Your task to perform on an android device: move an email to a new category in the gmail app Image 0: 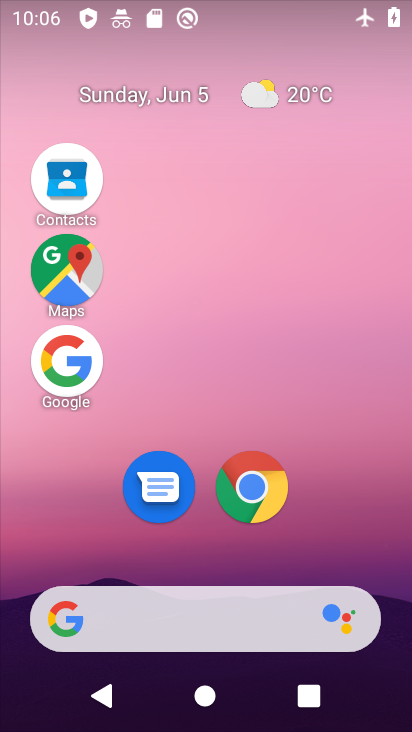
Step 0: drag from (221, 587) to (249, 186)
Your task to perform on an android device: move an email to a new category in the gmail app Image 1: 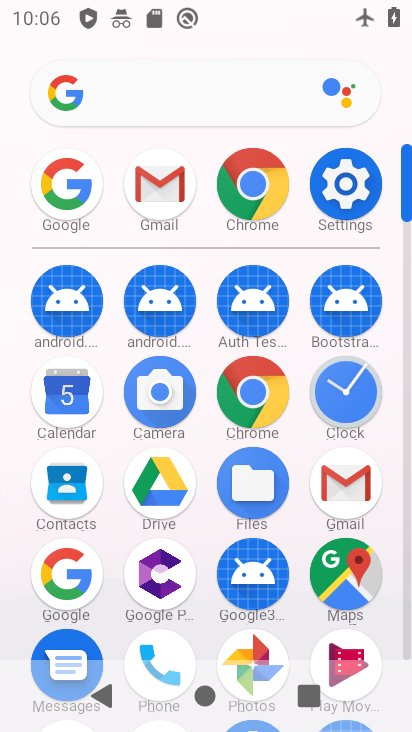
Step 1: click (350, 476)
Your task to perform on an android device: move an email to a new category in the gmail app Image 2: 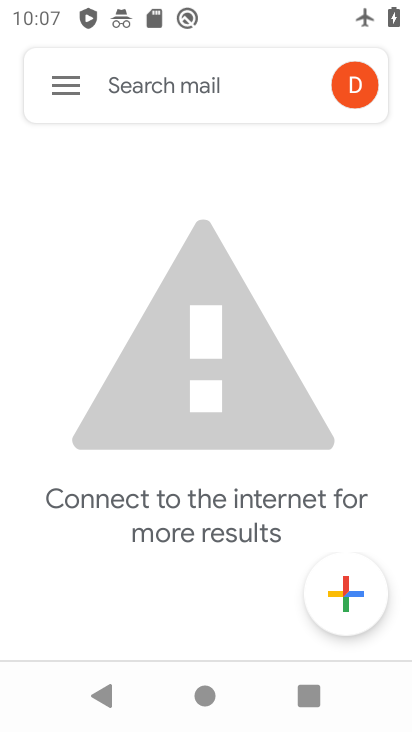
Step 2: click (58, 89)
Your task to perform on an android device: move an email to a new category in the gmail app Image 3: 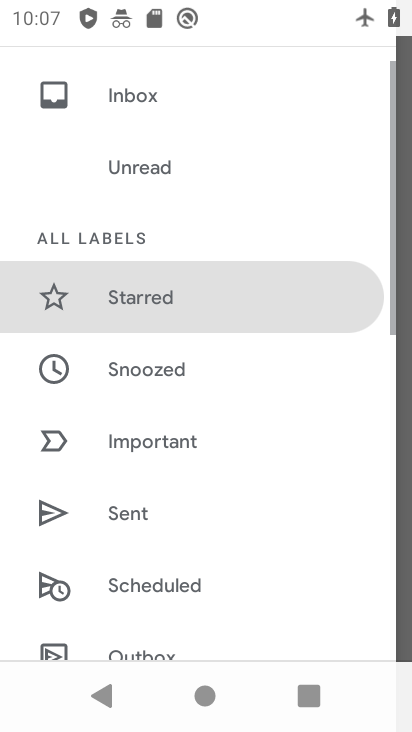
Step 3: drag from (116, 540) to (143, 40)
Your task to perform on an android device: move an email to a new category in the gmail app Image 4: 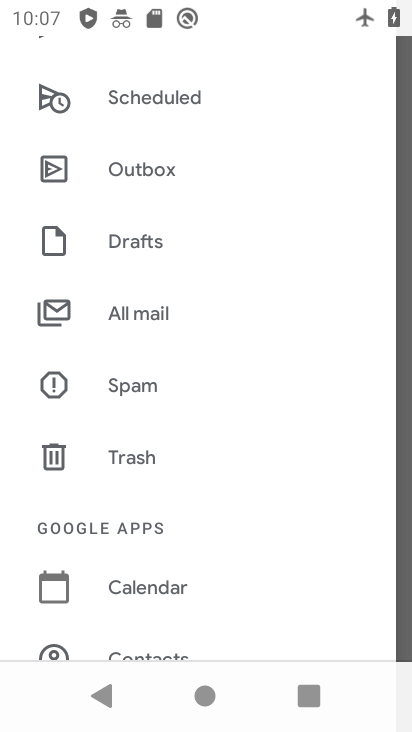
Step 4: click (135, 327)
Your task to perform on an android device: move an email to a new category in the gmail app Image 5: 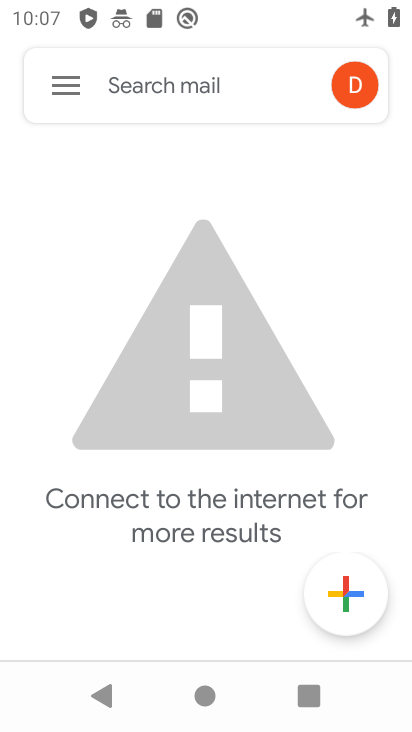
Step 5: click (78, 79)
Your task to perform on an android device: move an email to a new category in the gmail app Image 6: 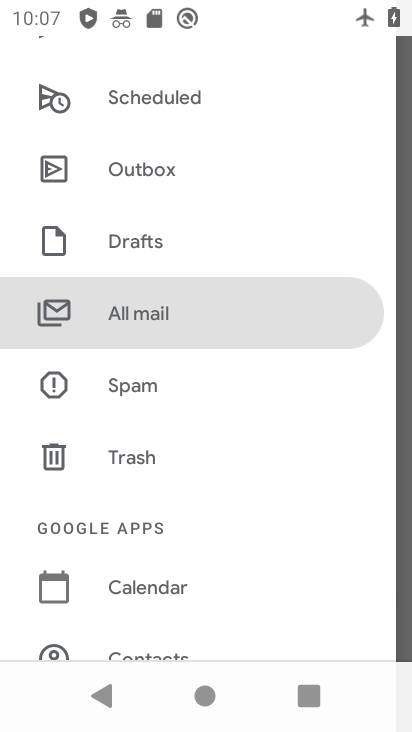
Step 6: task complete